Your task to perform on an android device: turn smart compose on in the gmail app Image 0: 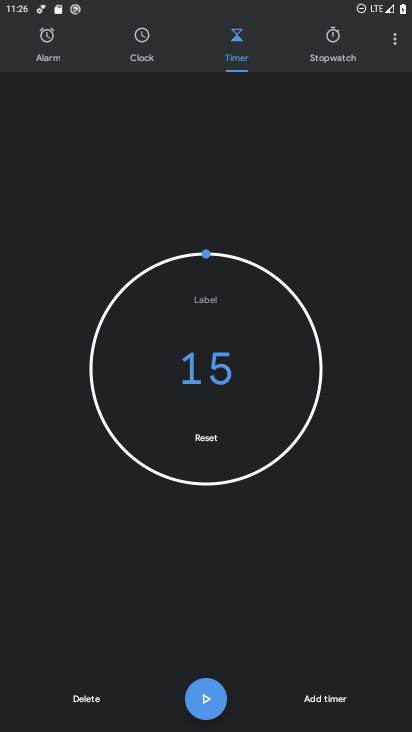
Step 0: press home button
Your task to perform on an android device: turn smart compose on in the gmail app Image 1: 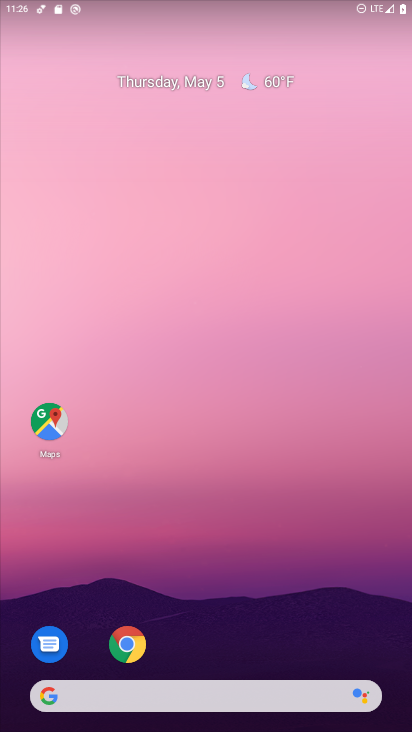
Step 1: drag from (378, 629) to (353, 175)
Your task to perform on an android device: turn smart compose on in the gmail app Image 2: 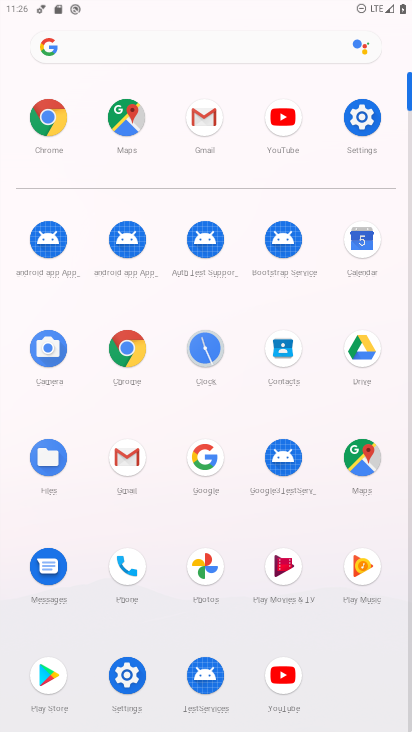
Step 2: click (136, 459)
Your task to perform on an android device: turn smart compose on in the gmail app Image 3: 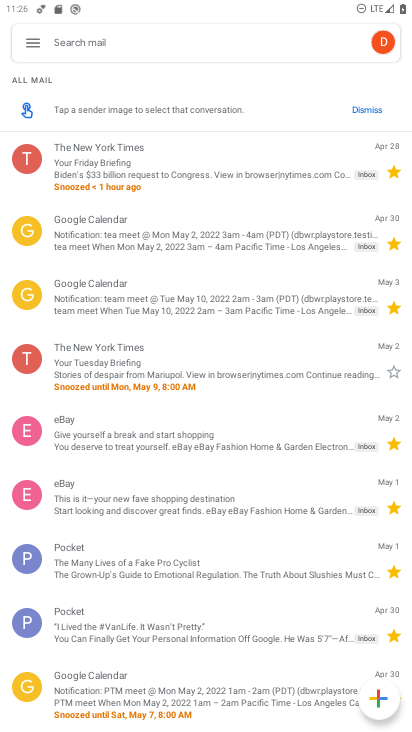
Step 3: click (40, 46)
Your task to perform on an android device: turn smart compose on in the gmail app Image 4: 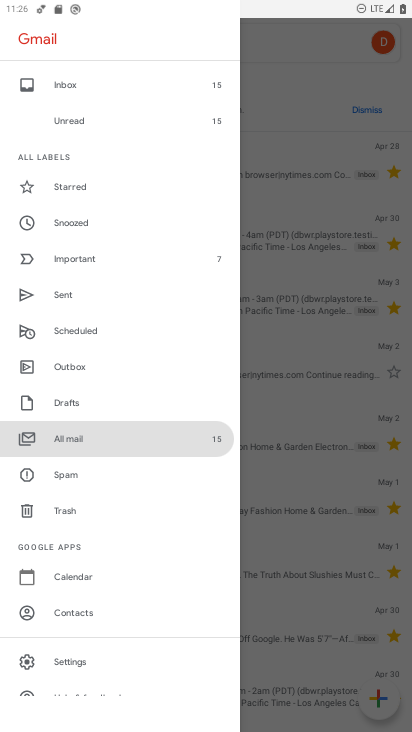
Step 4: drag from (109, 648) to (151, 313)
Your task to perform on an android device: turn smart compose on in the gmail app Image 5: 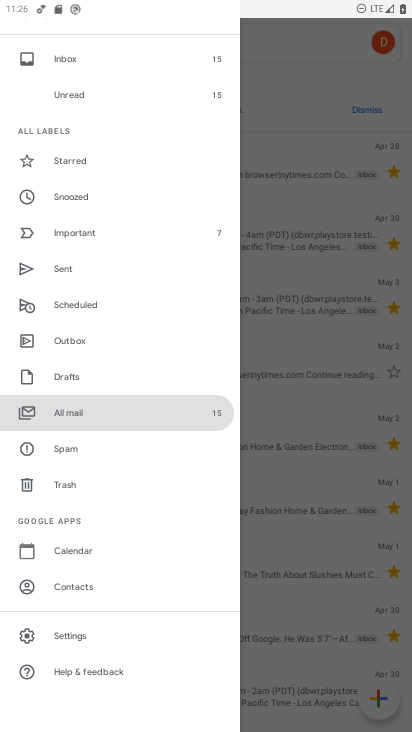
Step 5: click (75, 628)
Your task to perform on an android device: turn smart compose on in the gmail app Image 6: 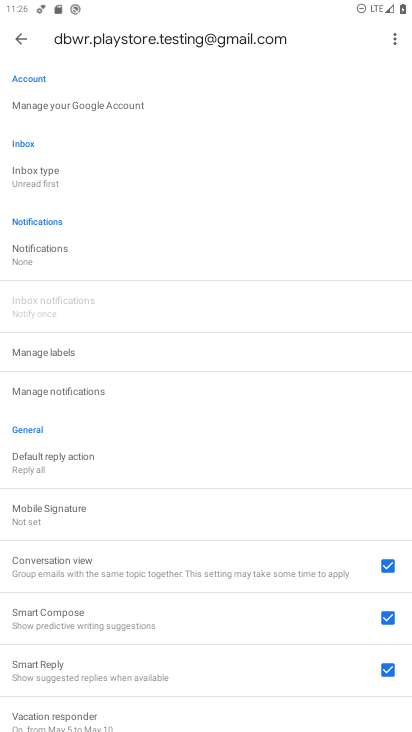
Step 6: task complete